Your task to perform on an android device: find snoozed emails in the gmail app Image 0: 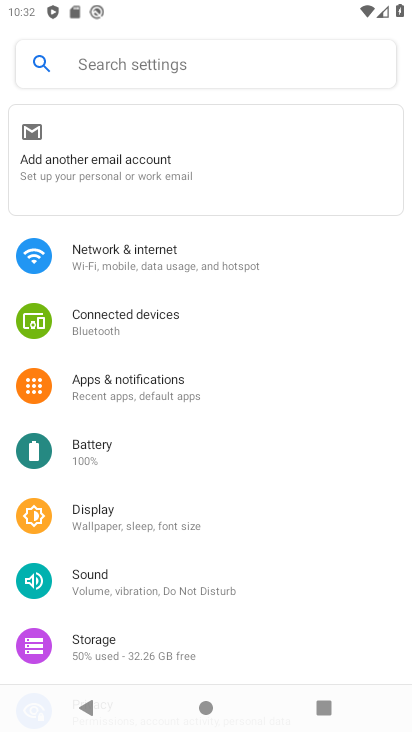
Step 0: press home button
Your task to perform on an android device: find snoozed emails in the gmail app Image 1: 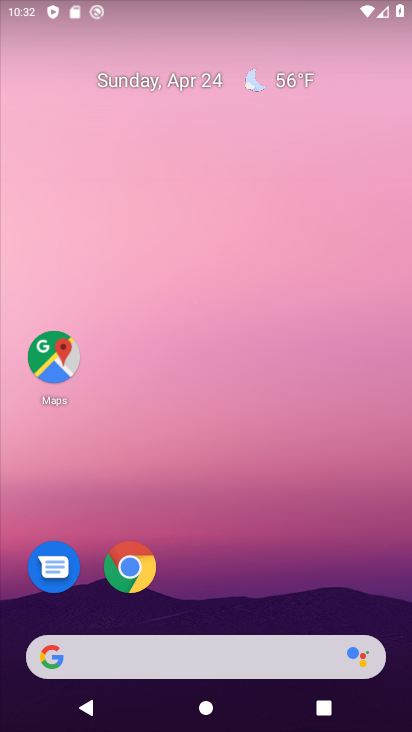
Step 1: drag from (404, 371) to (393, 210)
Your task to perform on an android device: find snoozed emails in the gmail app Image 2: 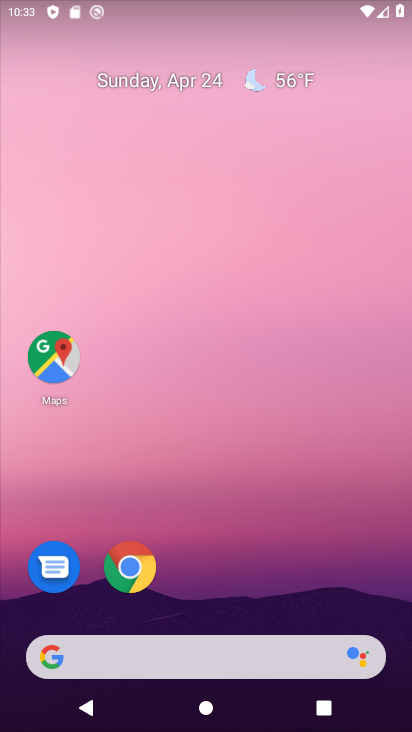
Step 2: drag from (393, 645) to (367, 97)
Your task to perform on an android device: find snoozed emails in the gmail app Image 3: 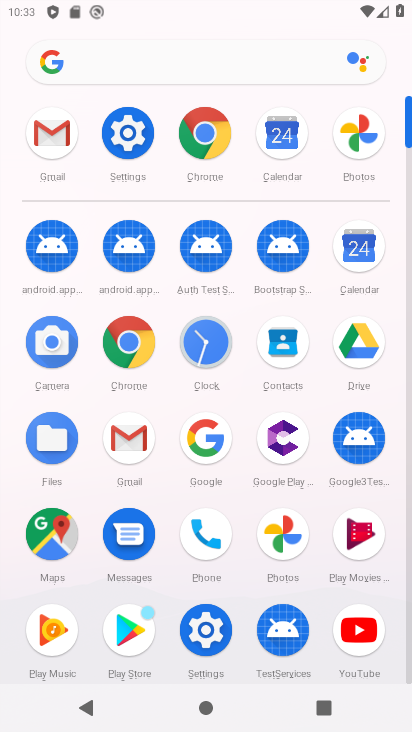
Step 3: click (125, 434)
Your task to perform on an android device: find snoozed emails in the gmail app Image 4: 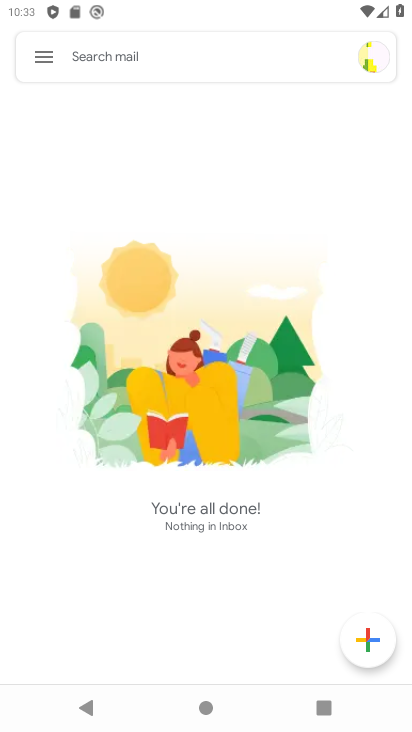
Step 4: click (42, 55)
Your task to perform on an android device: find snoozed emails in the gmail app Image 5: 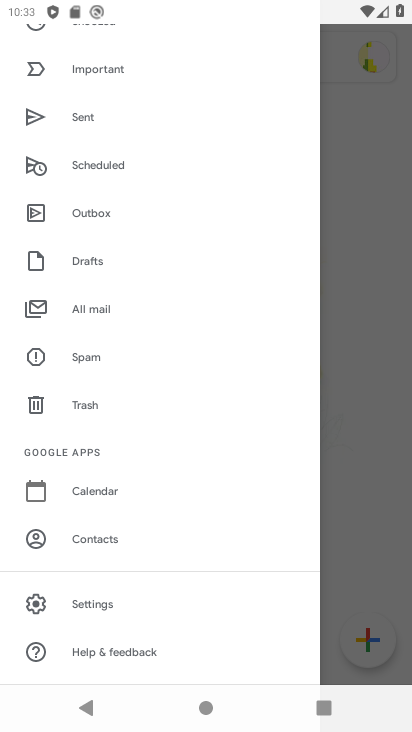
Step 5: drag from (216, 138) to (206, 505)
Your task to perform on an android device: find snoozed emails in the gmail app Image 6: 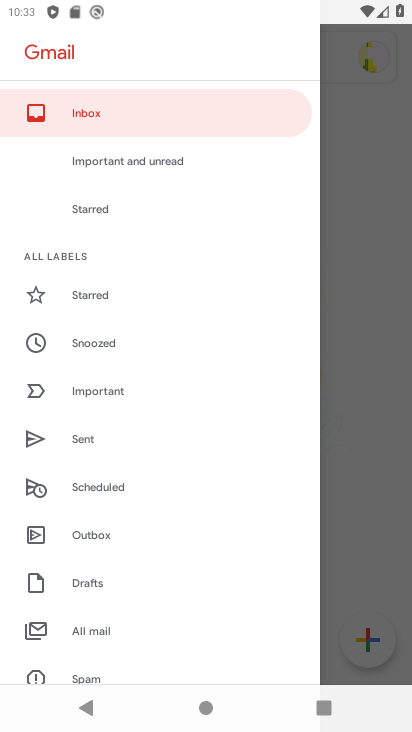
Step 6: click (79, 341)
Your task to perform on an android device: find snoozed emails in the gmail app Image 7: 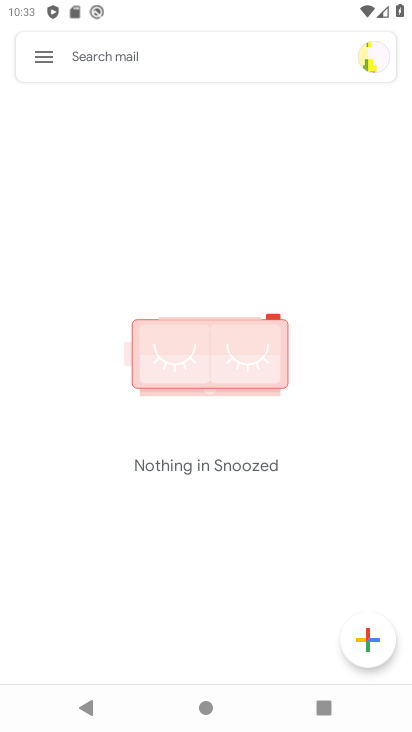
Step 7: task complete